Your task to perform on an android device: What's on my calendar tomorrow? Image 0: 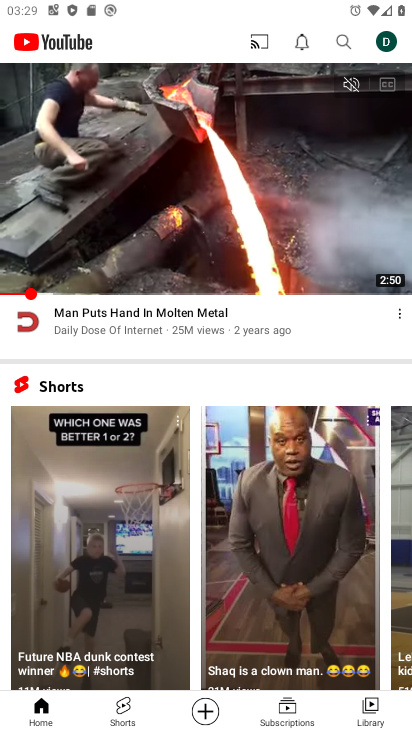
Step 0: press home button
Your task to perform on an android device: What's on my calendar tomorrow? Image 1: 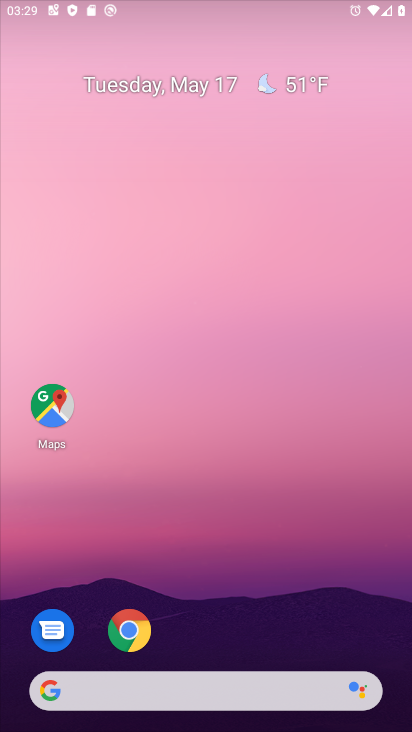
Step 1: drag from (160, 598) to (358, 55)
Your task to perform on an android device: What's on my calendar tomorrow? Image 2: 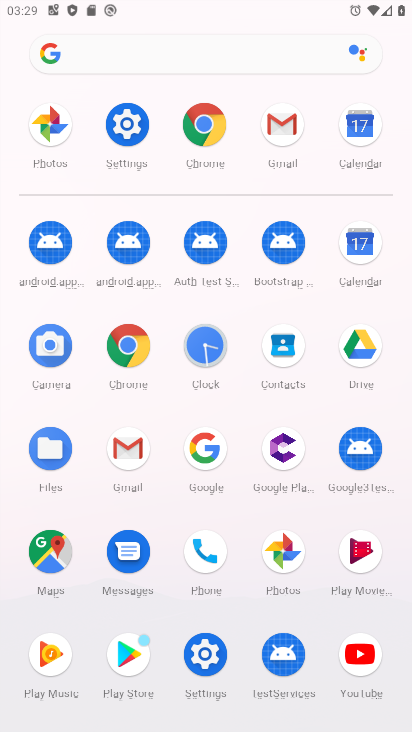
Step 2: click (354, 247)
Your task to perform on an android device: What's on my calendar tomorrow? Image 3: 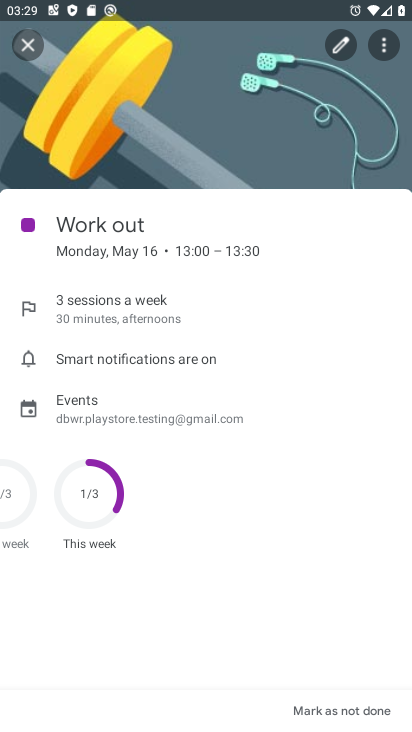
Step 3: press back button
Your task to perform on an android device: What's on my calendar tomorrow? Image 4: 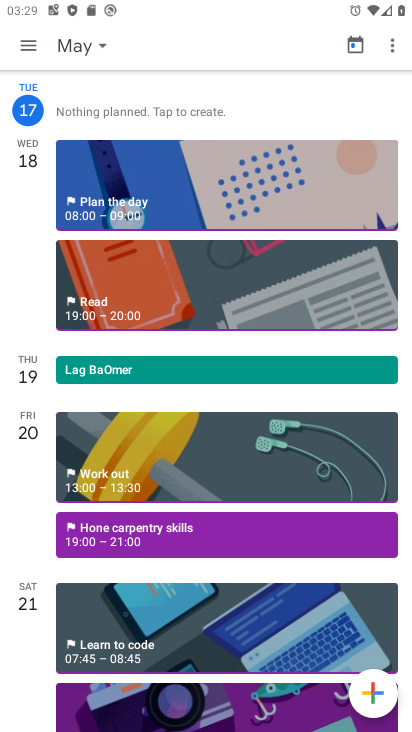
Step 4: drag from (233, 571) to (311, 183)
Your task to perform on an android device: What's on my calendar tomorrow? Image 5: 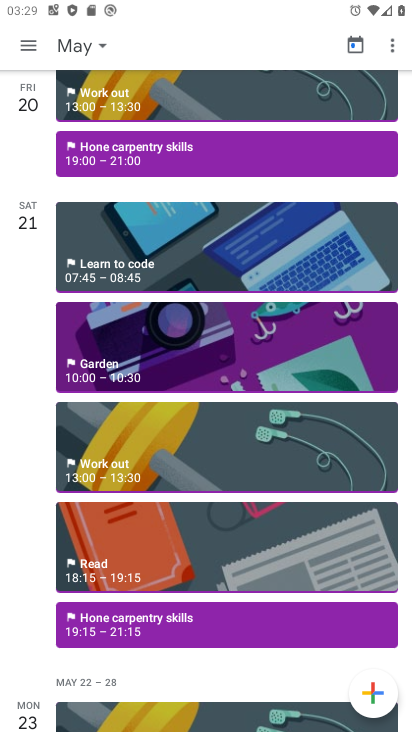
Step 5: drag from (223, 116) to (226, 291)
Your task to perform on an android device: What's on my calendar tomorrow? Image 6: 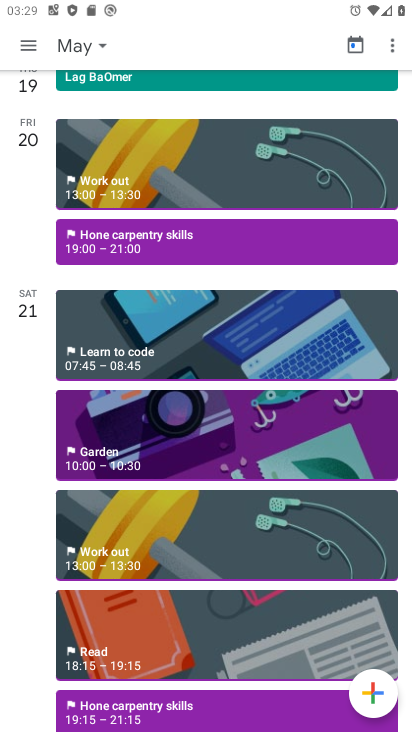
Step 6: drag from (214, 575) to (186, 718)
Your task to perform on an android device: What's on my calendar tomorrow? Image 7: 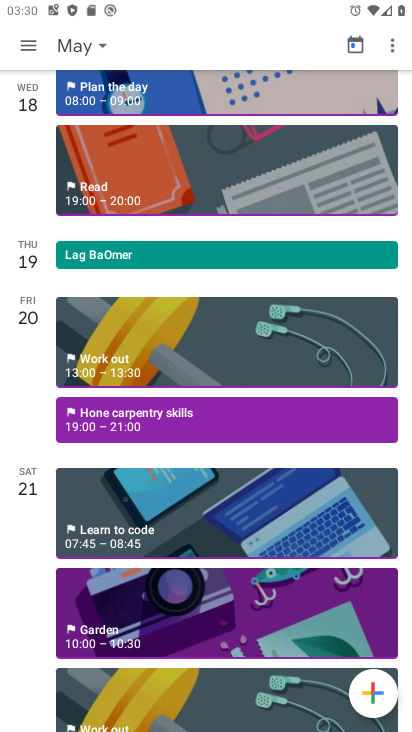
Step 7: drag from (207, 263) to (152, 713)
Your task to perform on an android device: What's on my calendar tomorrow? Image 8: 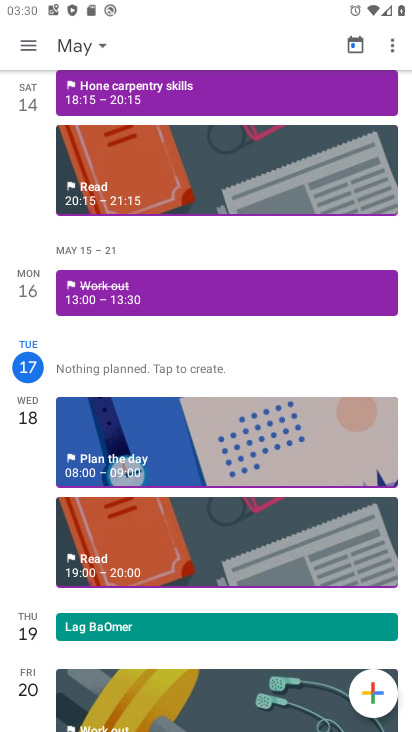
Step 8: drag from (136, 427) to (144, 480)
Your task to perform on an android device: What's on my calendar tomorrow? Image 9: 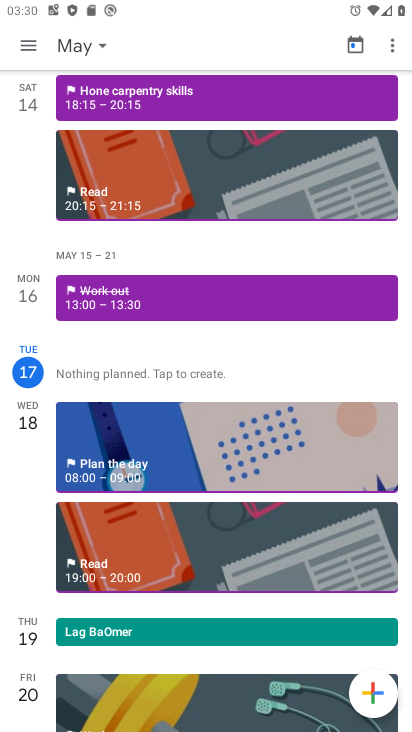
Step 9: click (237, 315)
Your task to perform on an android device: What's on my calendar tomorrow? Image 10: 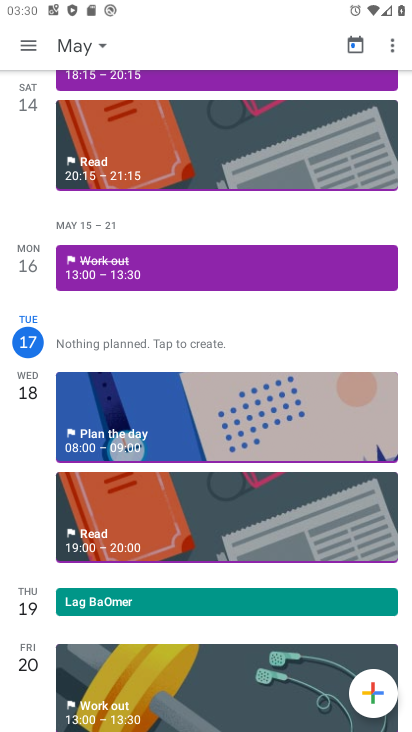
Step 10: click (112, 529)
Your task to perform on an android device: What's on my calendar tomorrow? Image 11: 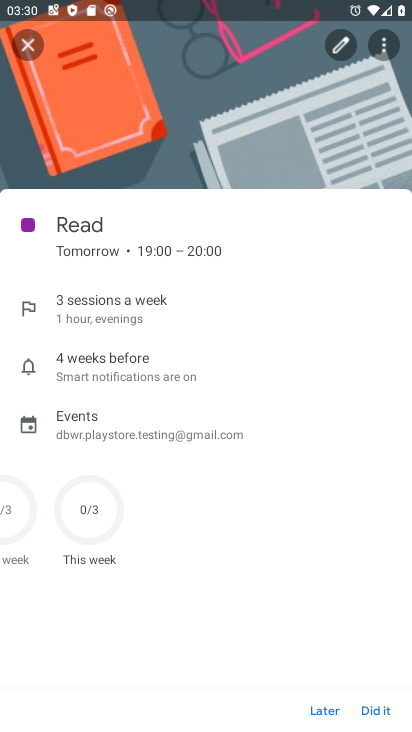
Step 11: task complete